Your task to perform on an android device: show emergency info Image 0: 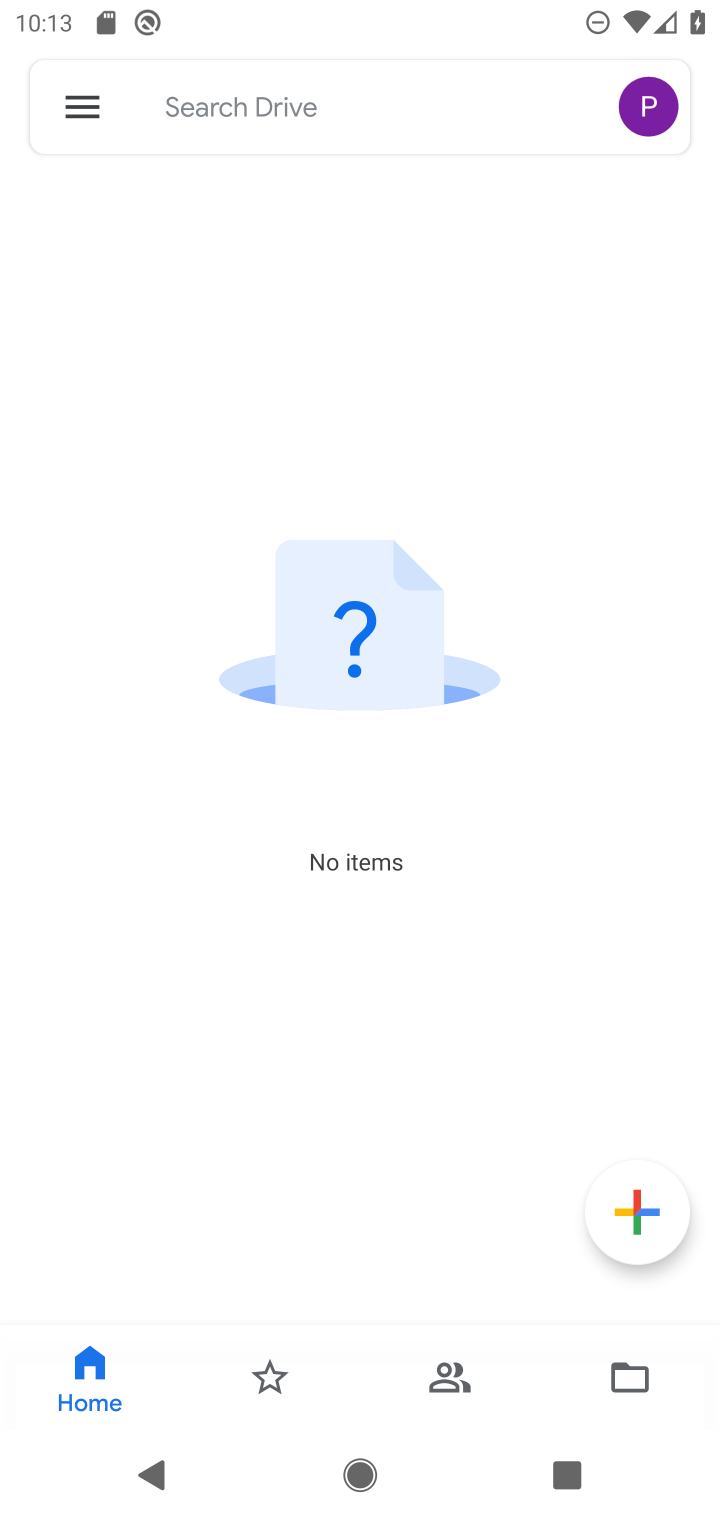
Step 0: press home button
Your task to perform on an android device: show emergency info Image 1: 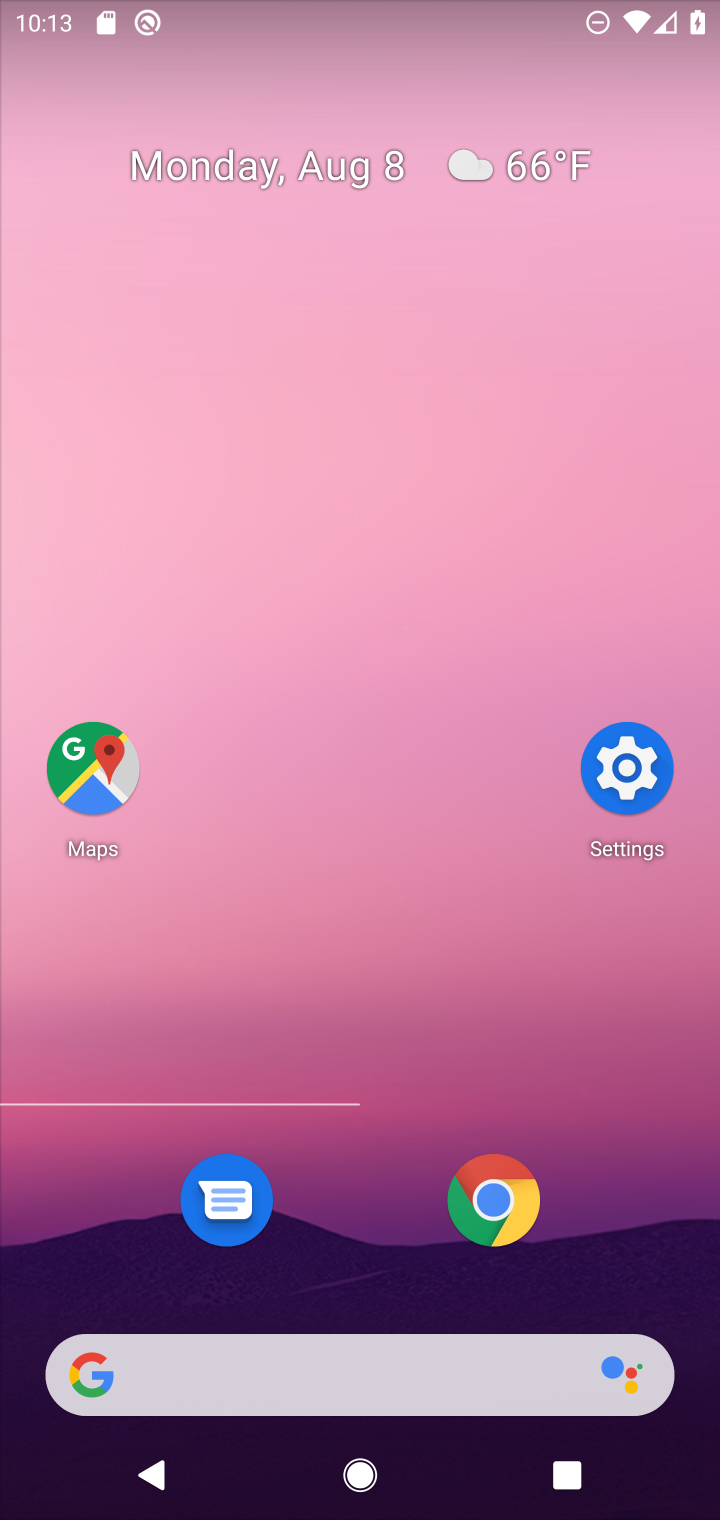
Step 1: click (621, 762)
Your task to perform on an android device: show emergency info Image 2: 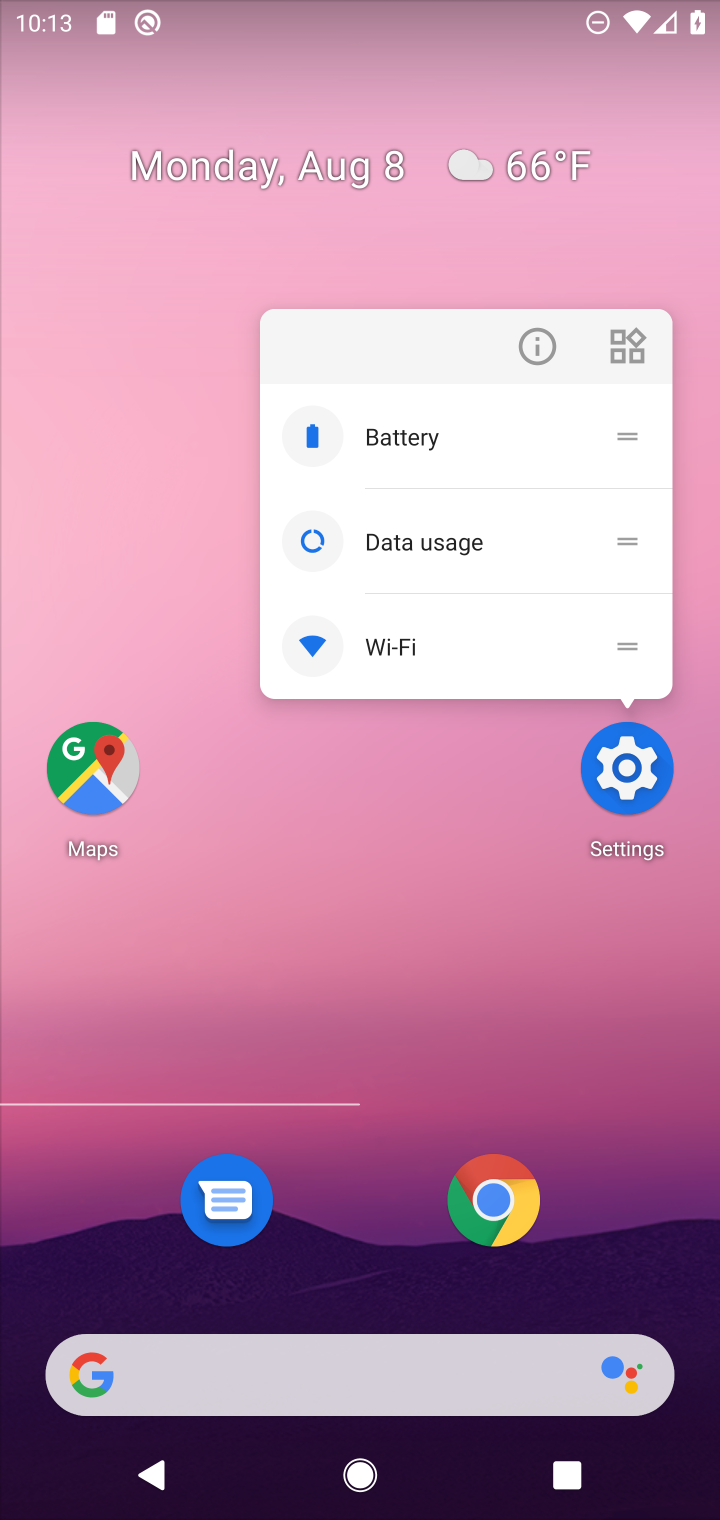
Step 2: click (621, 760)
Your task to perform on an android device: show emergency info Image 3: 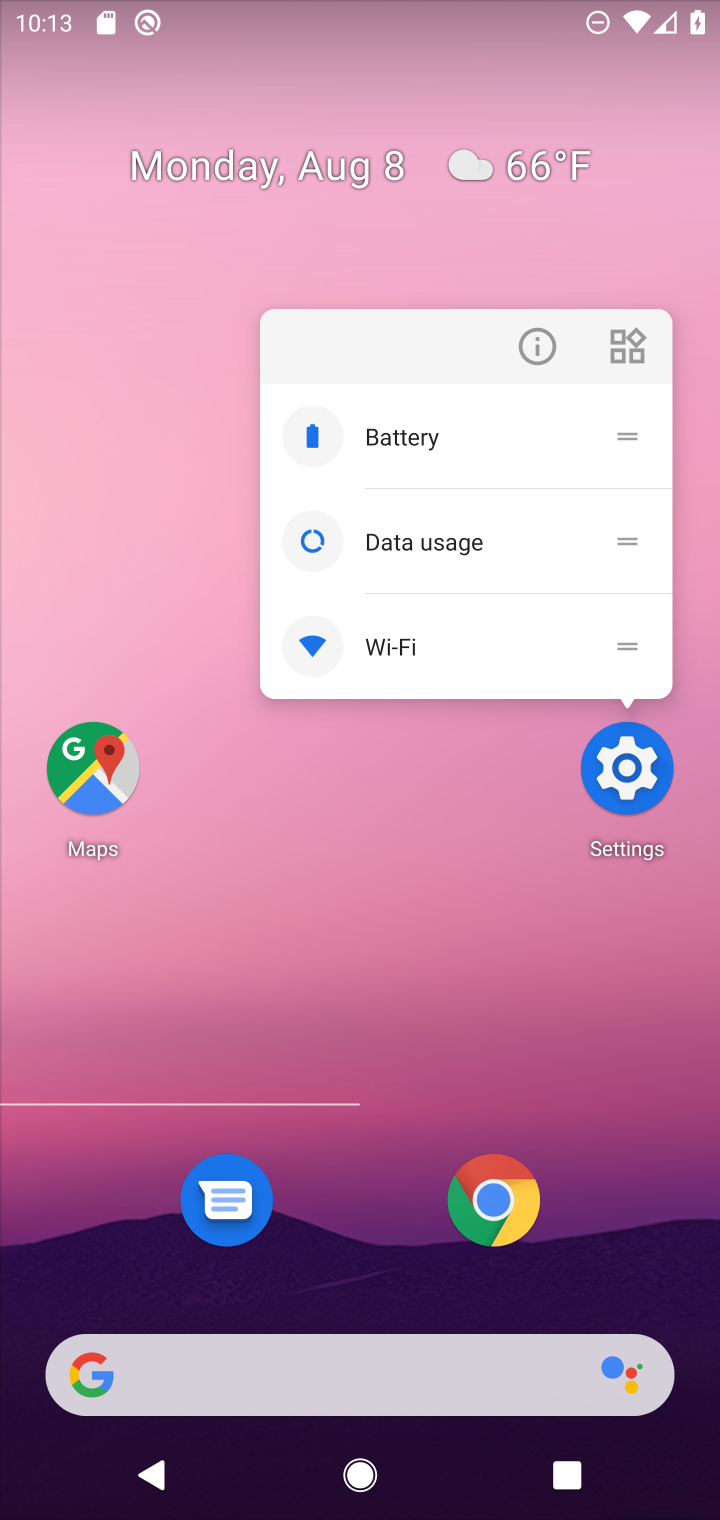
Step 3: click (617, 775)
Your task to perform on an android device: show emergency info Image 4: 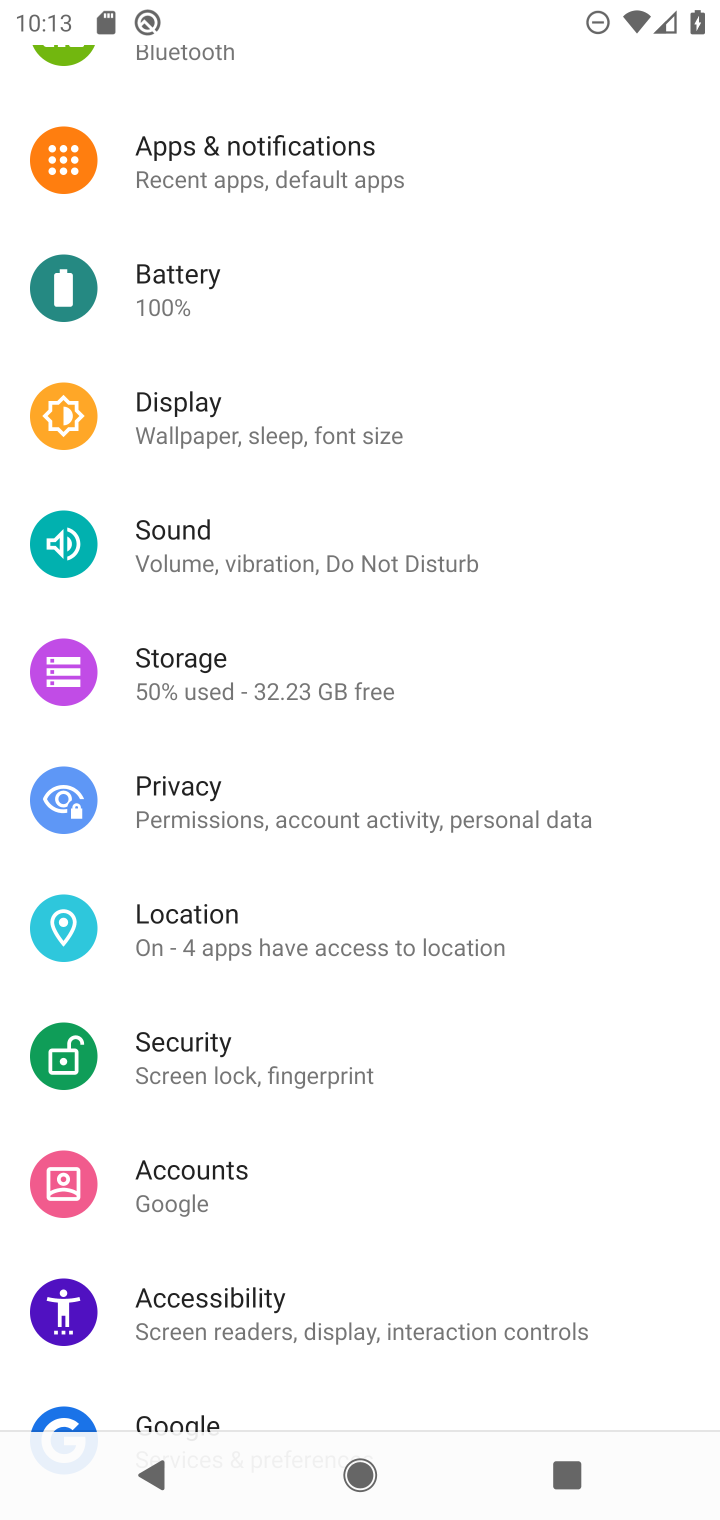
Step 4: drag from (475, 1191) to (699, 93)
Your task to perform on an android device: show emergency info Image 5: 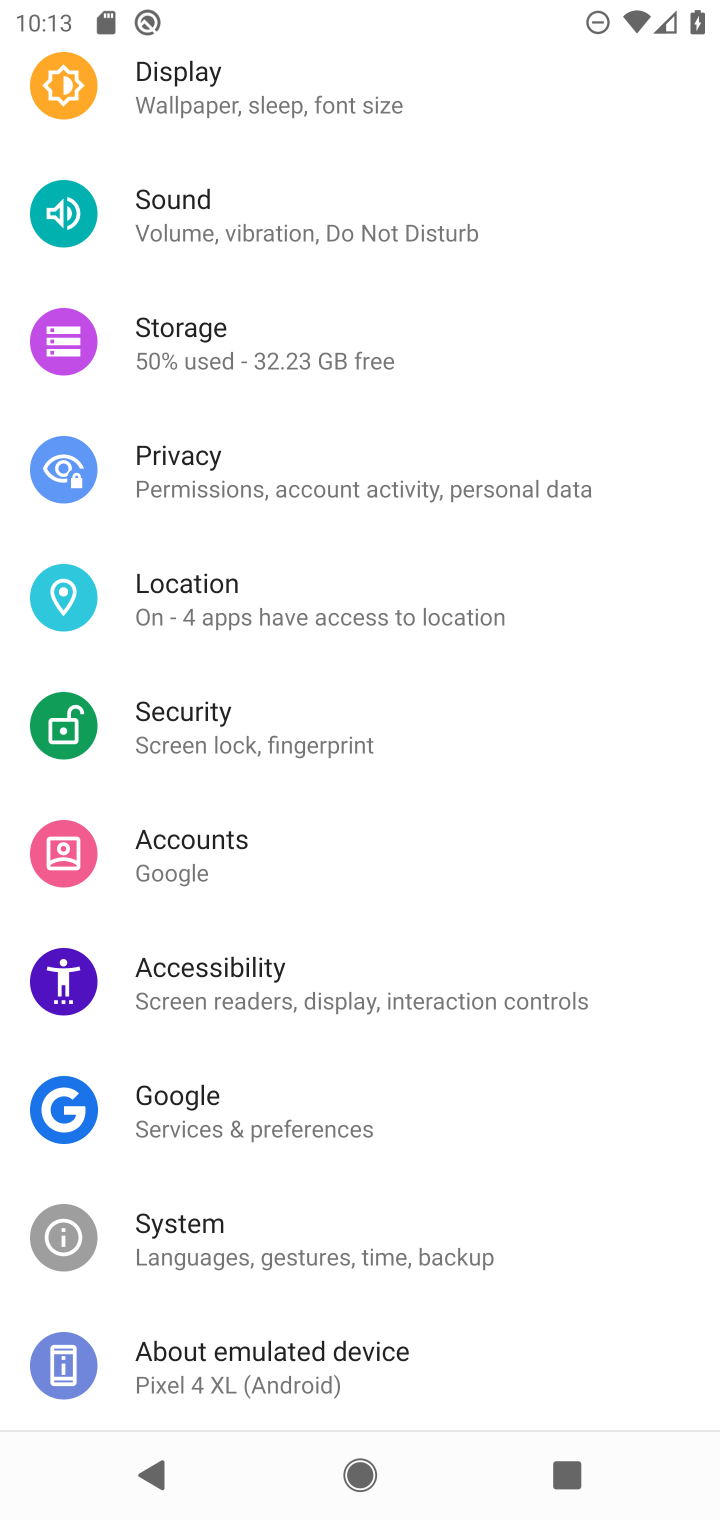
Step 5: click (264, 1358)
Your task to perform on an android device: show emergency info Image 6: 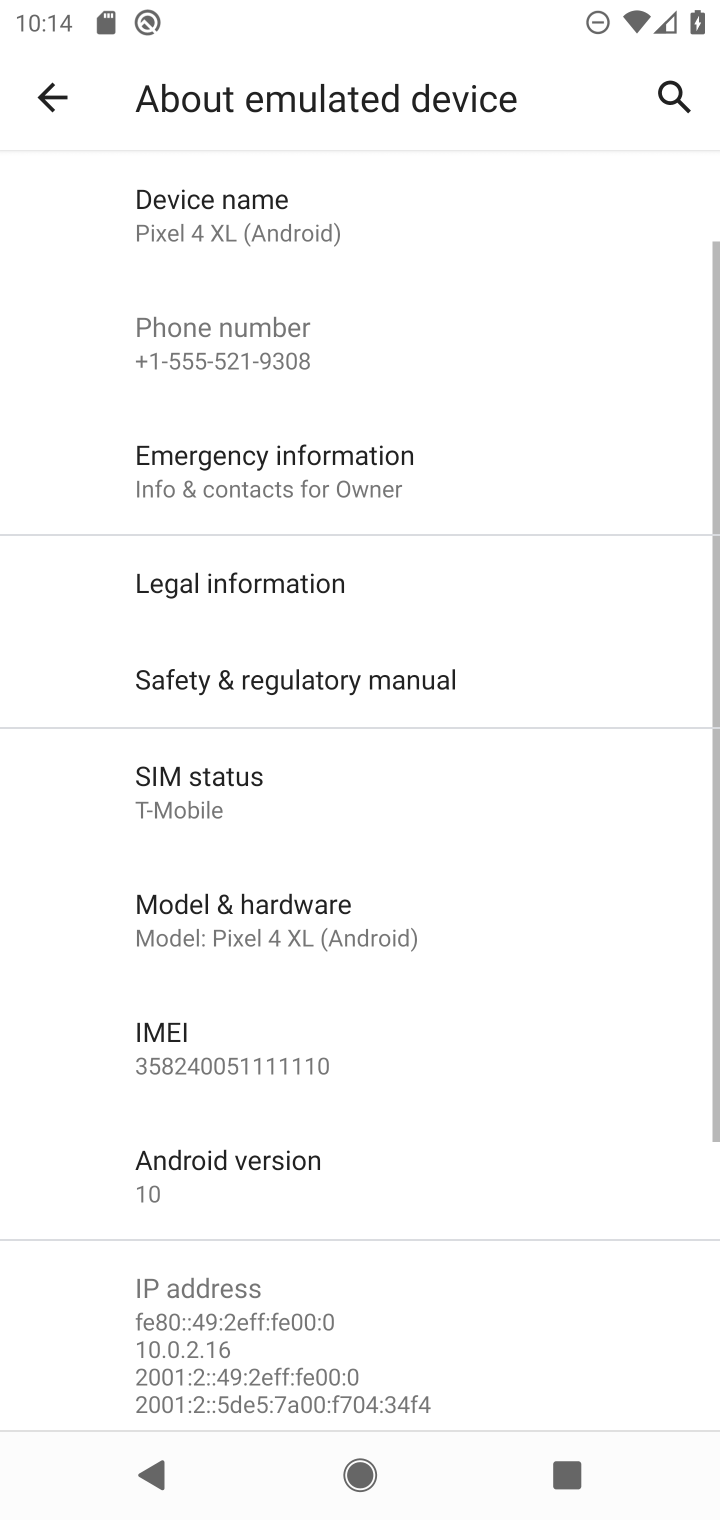
Step 6: click (285, 472)
Your task to perform on an android device: show emergency info Image 7: 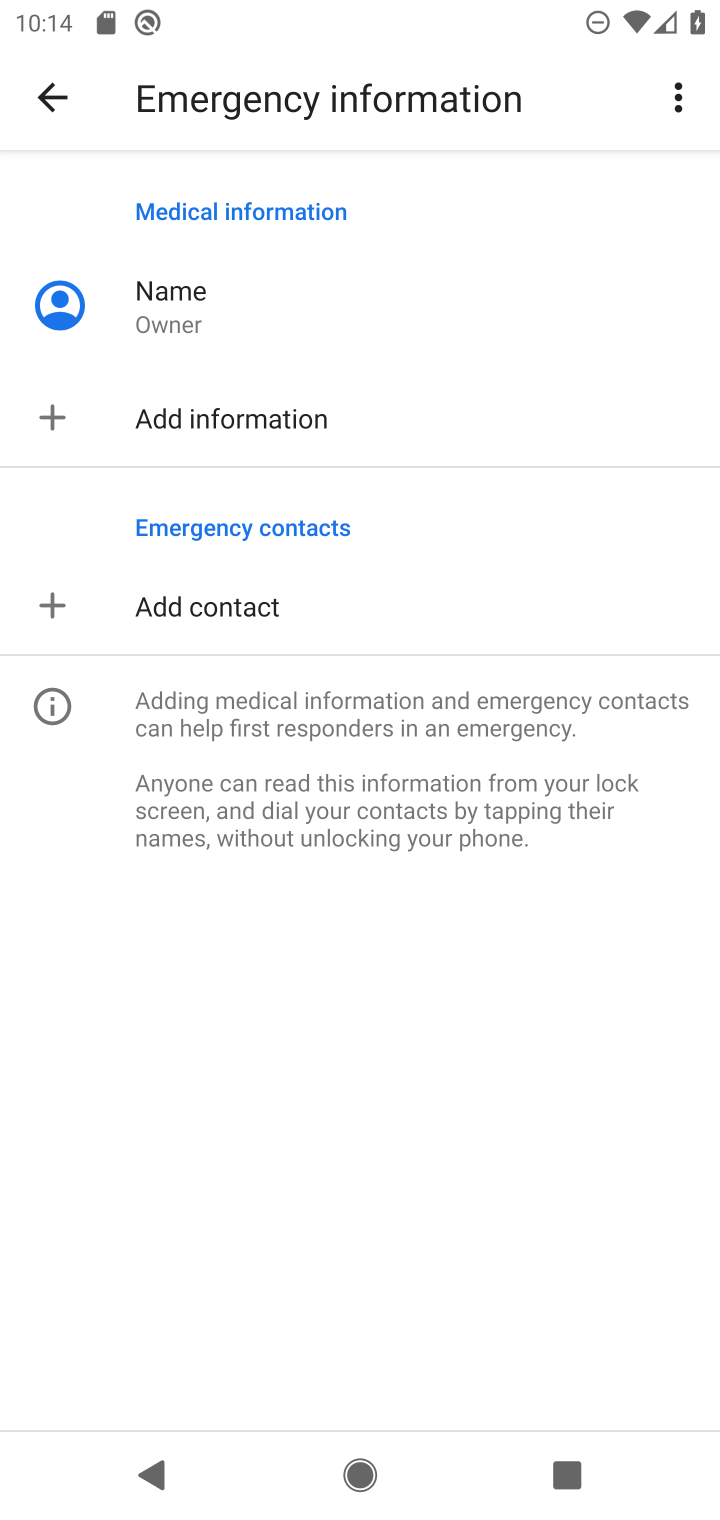
Step 7: task complete